Your task to perform on an android device: Open accessibility settings Image 0: 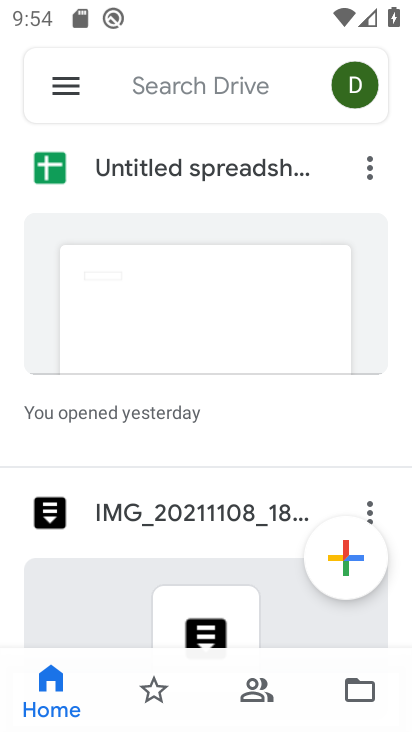
Step 0: press home button
Your task to perform on an android device: Open accessibility settings Image 1: 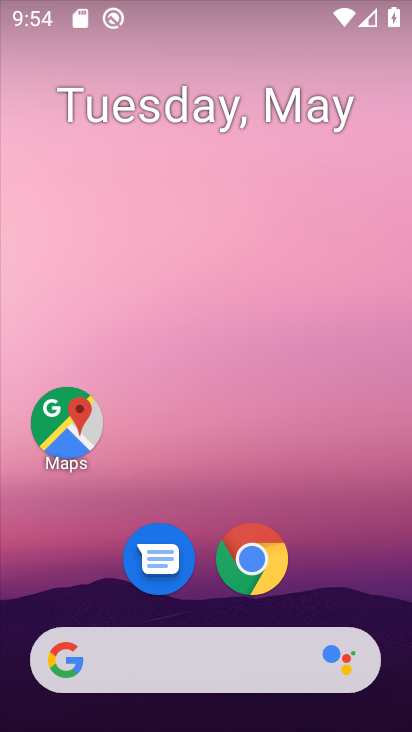
Step 1: drag from (397, 639) to (294, 56)
Your task to perform on an android device: Open accessibility settings Image 2: 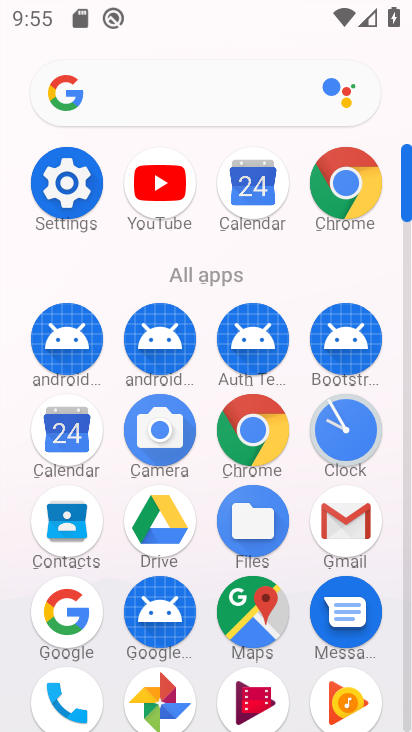
Step 2: click (76, 190)
Your task to perform on an android device: Open accessibility settings Image 3: 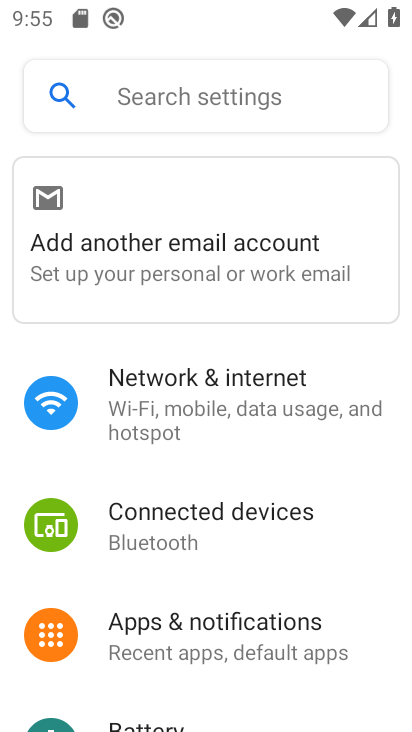
Step 3: drag from (188, 655) to (208, 144)
Your task to perform on an android device: Open accessibility settings Image 4: 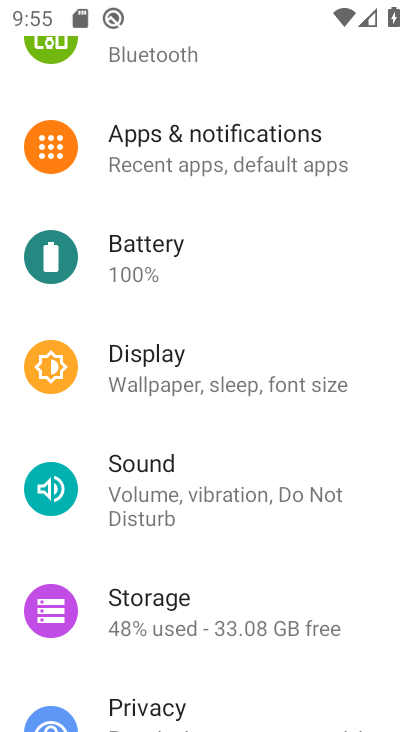
Step 4: drag from (182, 647) to (227, 64)
Your task to perform on an android device: Open accessibility settings Image 5: 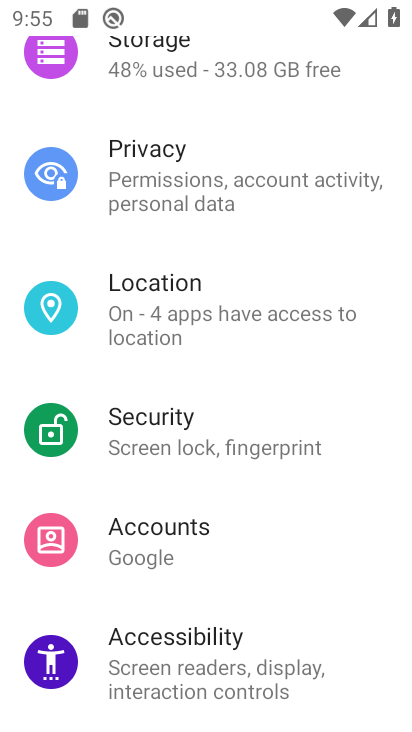
Step 5: drag from (218, 643) to (271, 239)
Your task to perform on an android device: Open accessibility settings Image 6: 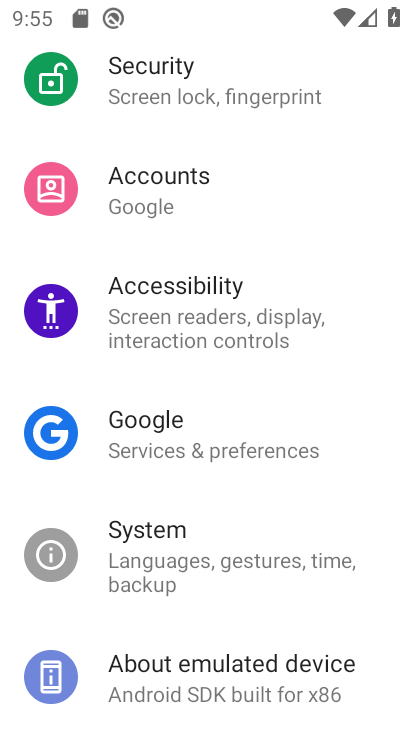
Step 6: click (197, 285)
Your task to perform on an android device: Open accessibility settings Image 7: 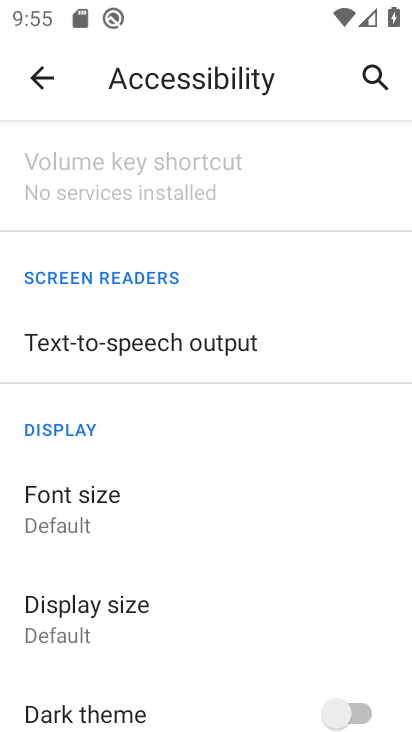
Step 7: task complete